Your task to perform on an android device: turn on the 24-hour format for clock Image 0: 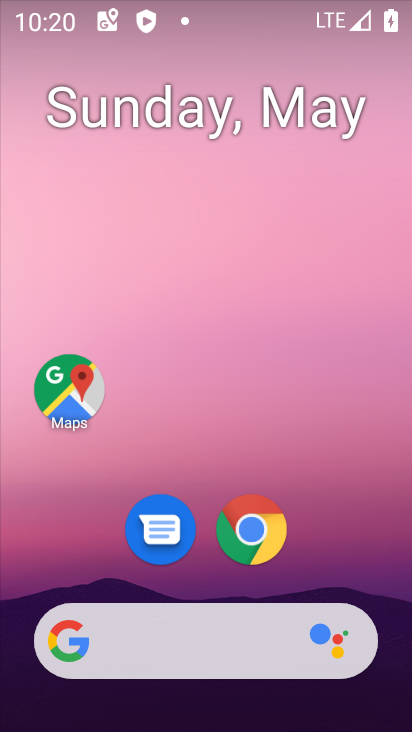
Step 0: drag from (363, 574) to (286, 27)
Your task to perform on an android device: turn on the 24-hour format for clock Image 1: 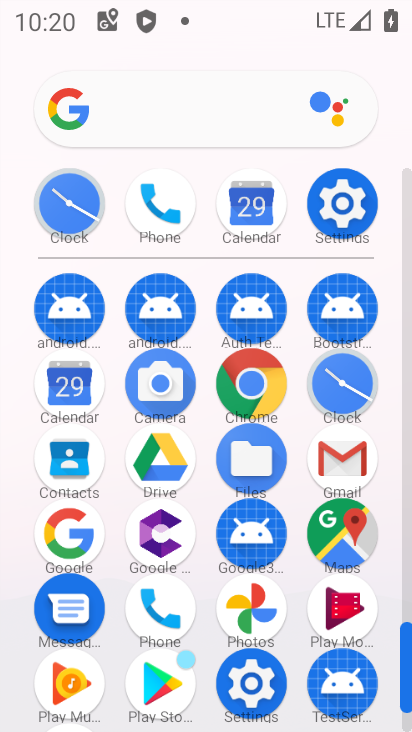
Step 1: click (84, 194)
Your task to perform on an android device: turn on the 24-hour format for clock Image 2: 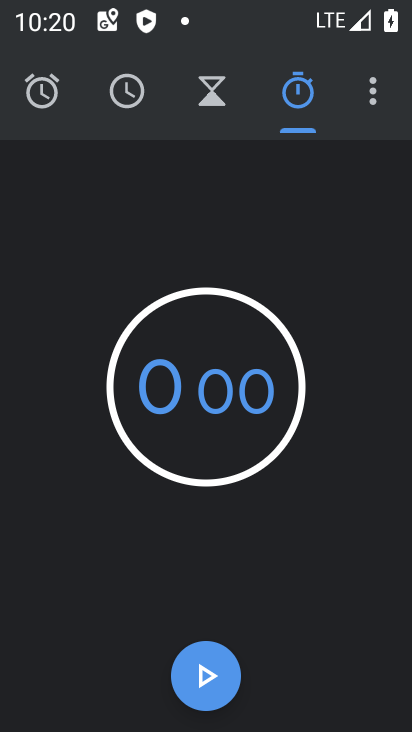
Step 2: click (381, 100)
Your task to perform on an android device: turn on the 24-hour format for clock Image 3: 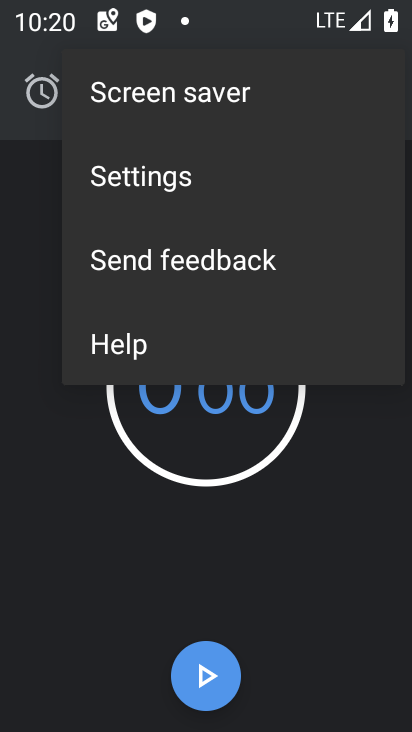
Step 3: click (234, 186)
Your task to perform on an android device: turn on the 24-hour format for clock Image 4: 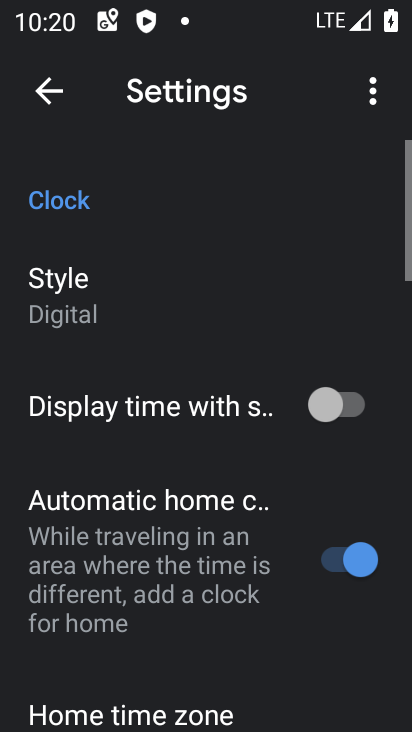
Step 4: drag from (197, 549) to (216, 203)
Your task to perform on an android device: turn on the 24-hour format for clock Image 5: 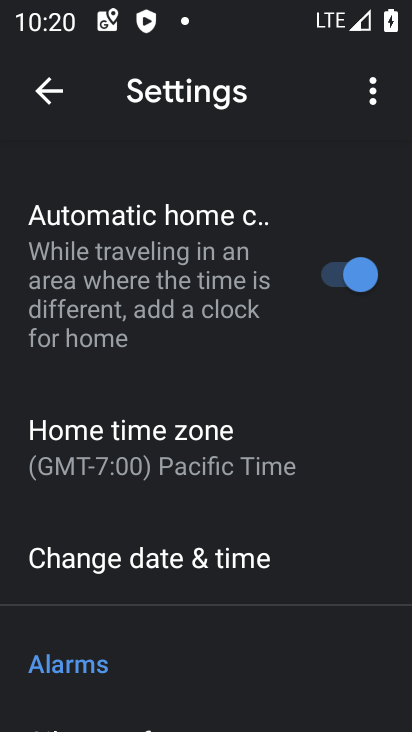
Step 5: drag from (211, 600) to (245, 389)
Your task to perform on an android device: turn on the 24-hour format for clock Image 6: 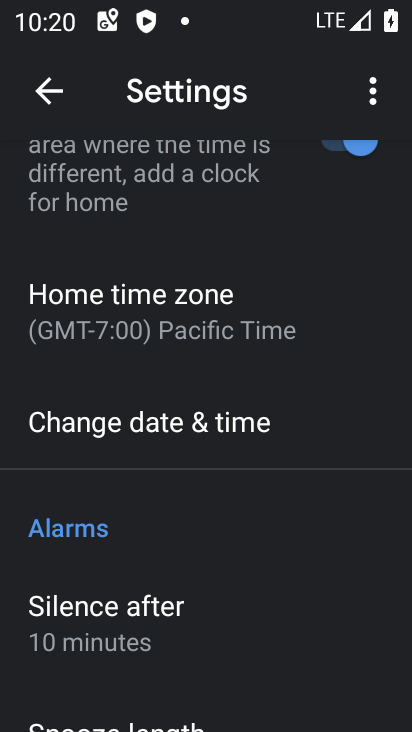
Step 6: click (202, 433)
Your task to perform on an android device: turn on the 24-hour format for clock Image 7: 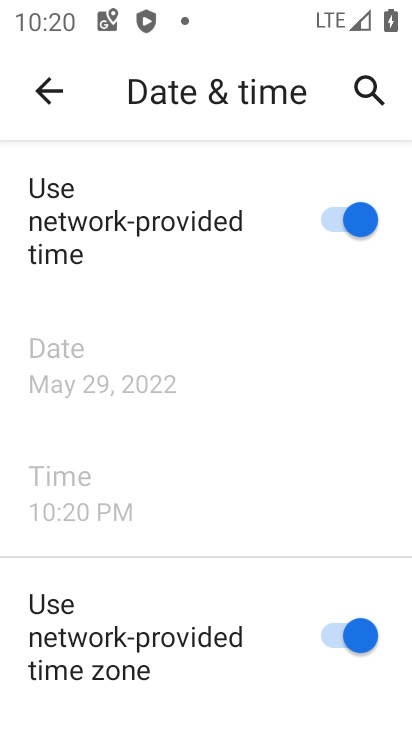
Step 7: drag from (229, 596) to (229, 554)
Your task to perform on an android device: turn on the 24-hour format for clock Image 8: 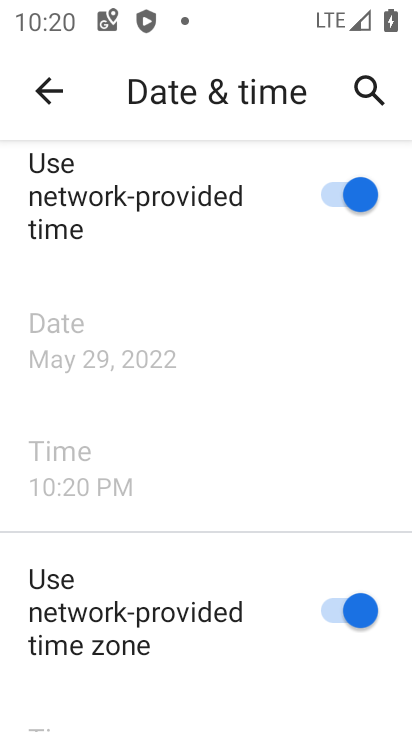
Step 8: drag from (226, 602) to (226, 135)
Your task to perform on an android device: turn on the 24-hour format for clock Image 9: 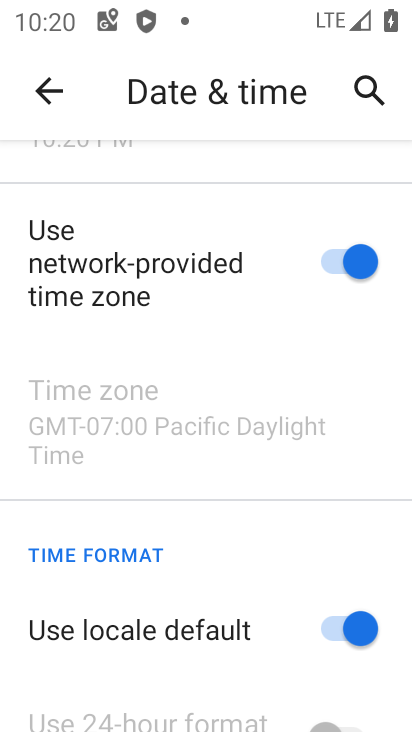
Step 9: drag from (190, 570) to (183, 245)
Your task to perform on an android device: turn on the 24-hour format for clock Image 10: 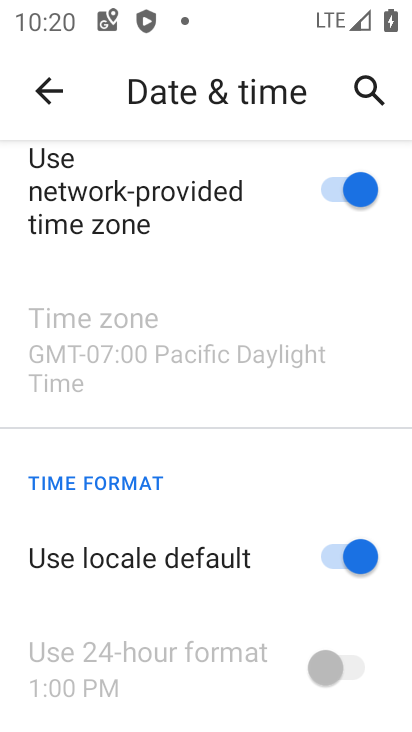
Step 10: click (317, 577)
Your task to perform on an android device: turn on the 24-hour format for clock Image 11: 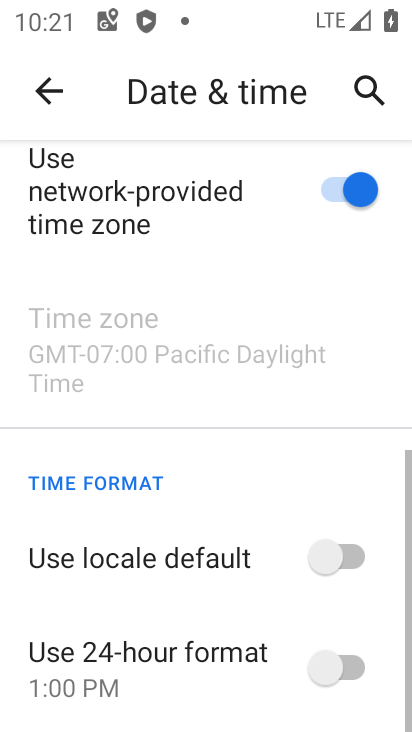
Step 11: click (321, 639)
Your task to perform on an android device: turn on the 24-hour format for clock Image 12: 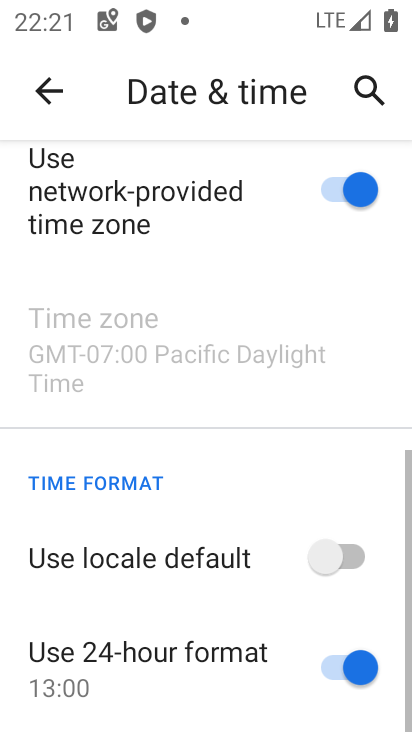
Step 12: task complete